Your task to perform on an android device: toggle notification dots Image 0: 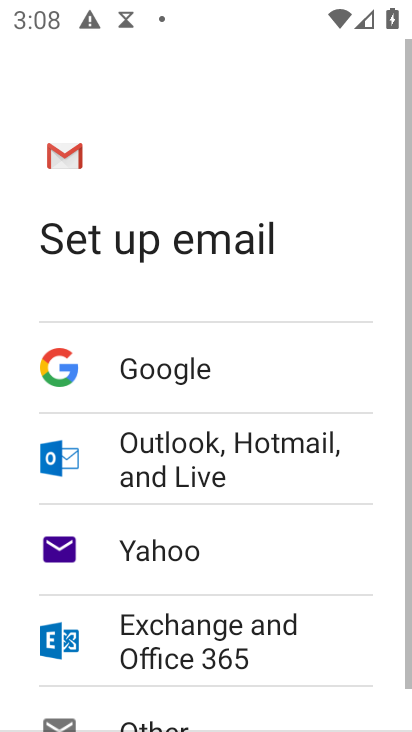
Step 0: press home button
Your task to perform on an android device: toggle notification dots Image 1: 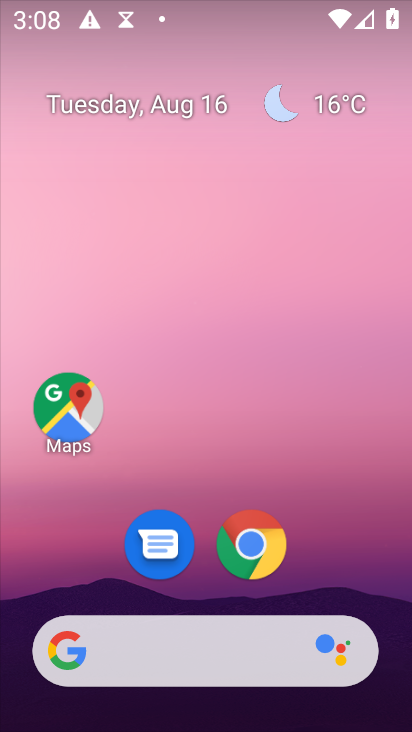
Step 1: drag from (188, 668) to (257, 54)
Your task to perform on an android device: toggle notification dots Image 2: 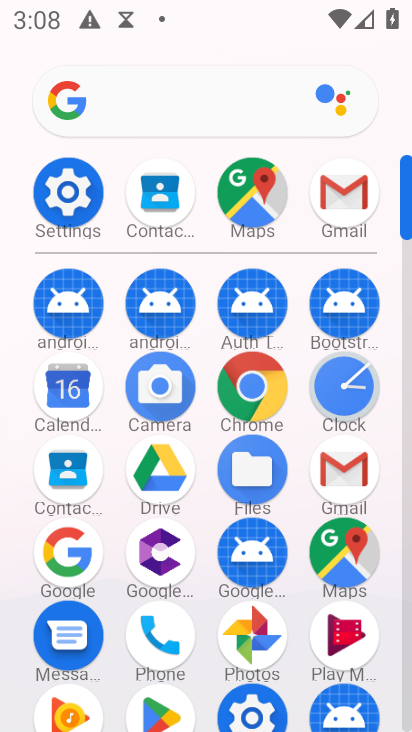
Step 2: click (65, 192)
Your task to perform on an android device: toggle notification dots Image 3: 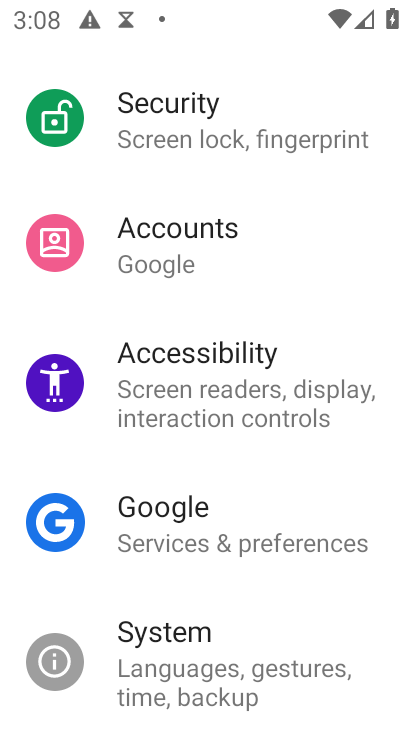
Step 3: drag from (236, 330) to (221, 460)
Your task to perform on an android device: toggle notification dots Image 4: 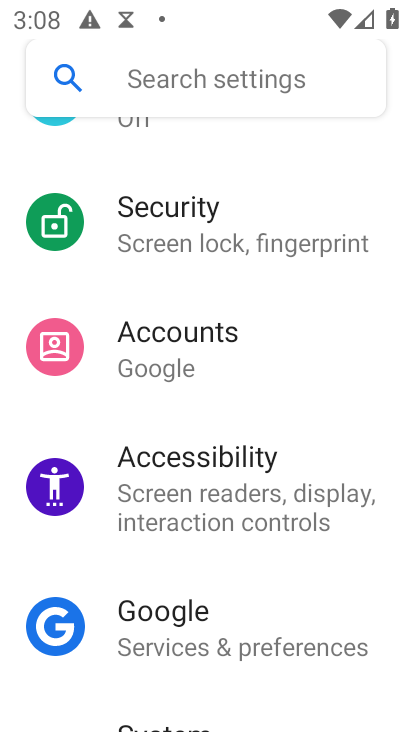
Step 4: drag from (220, 173) to (205, 313)
Your task to perform on an android device: toggle notification dots Image 5: 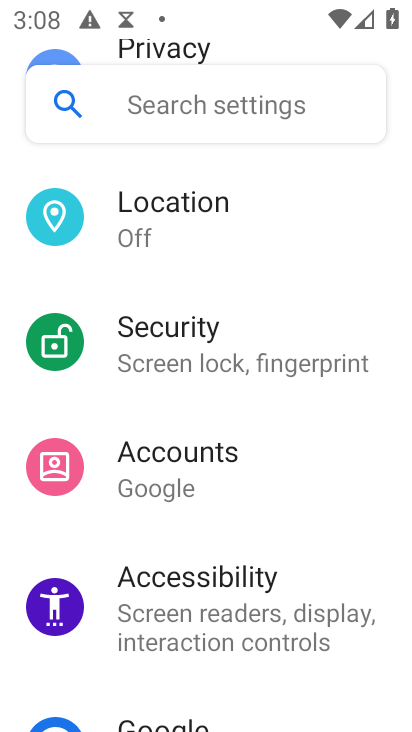
Step 5: drag from (178, 283) to (176, 420)
Your task to perform on an android device: toggle notification dots Image 6: 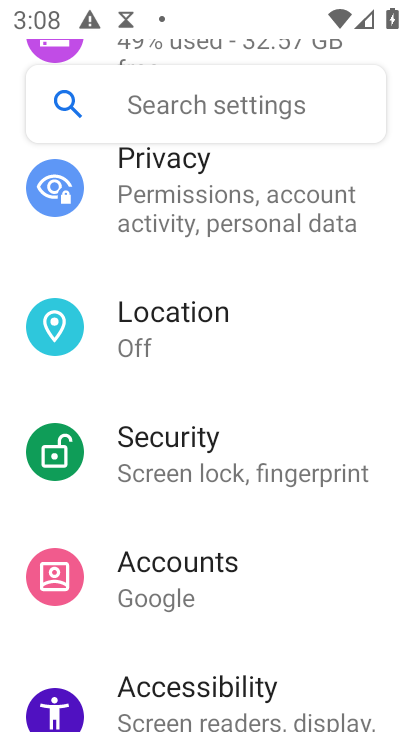
Step 6: drag from (189, 272) to (163, 446)
Your task to perform on an android device: toggle notification dots Image 7: 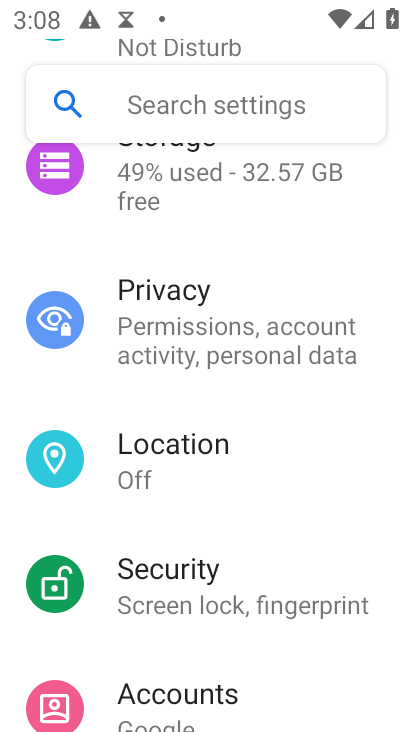
Step 7: drag from (175, 247) to (197, 391)
Your task to perform on an android device: toggle notification dots Image 8: 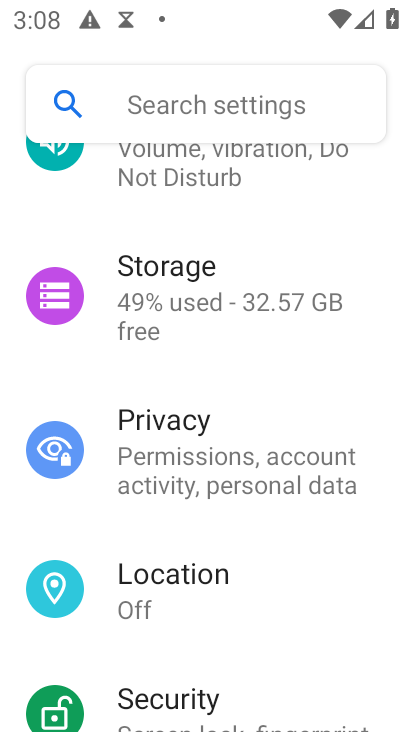
Step 8: drag from (173, 238) to (206, 409)
Your task to perform on an android device: toggle notification dots Image 9: 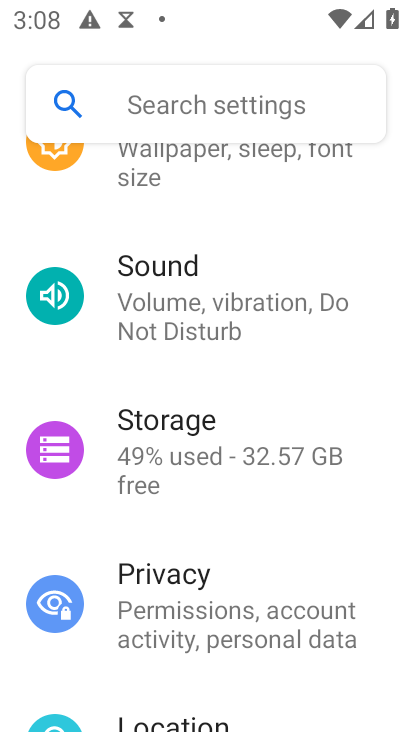
Step 9: drag from (166, 228) to (204, 422)
Your task to perform on an android device: toggle notification dots Image 10: 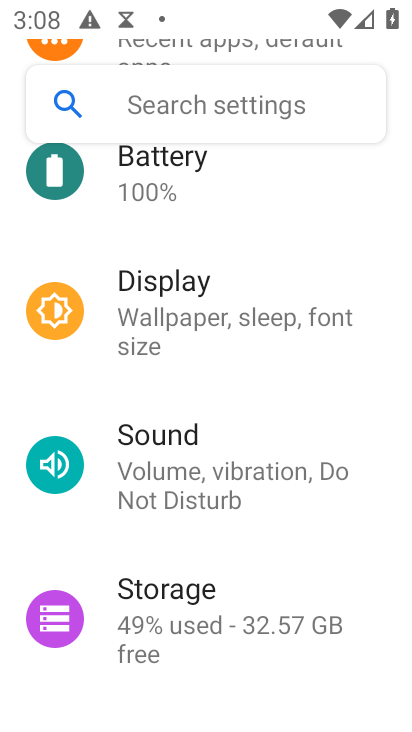
Step 10: drag from (166, 246) to (204, 381)
Your task to perform on an android device: toggle notification dots Image 11: 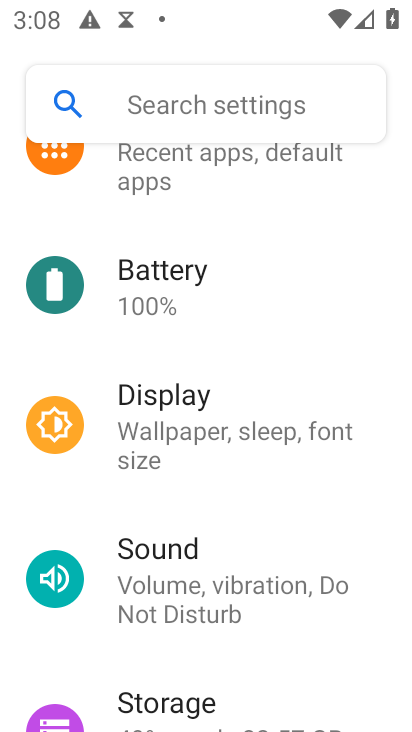
Step 11: drag from (162, 228) to (192, 398)
Your task to perform on an android device: toggle notification dots Image 12: 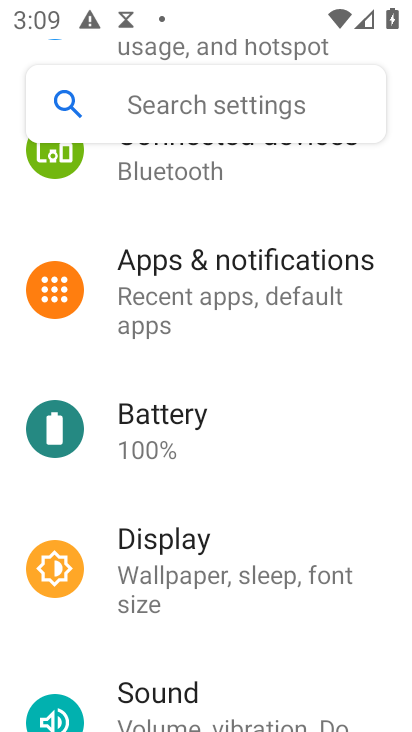
Step 12: click (241, 272)
Your task to perform on an android device: toggle notification dots Image 13: 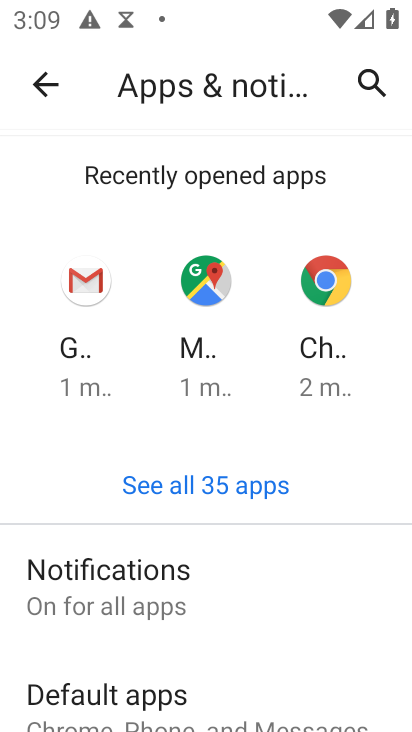
Step 13: click (127, 572)
Your task to perform on an android device: toggle notification dots Image 14: 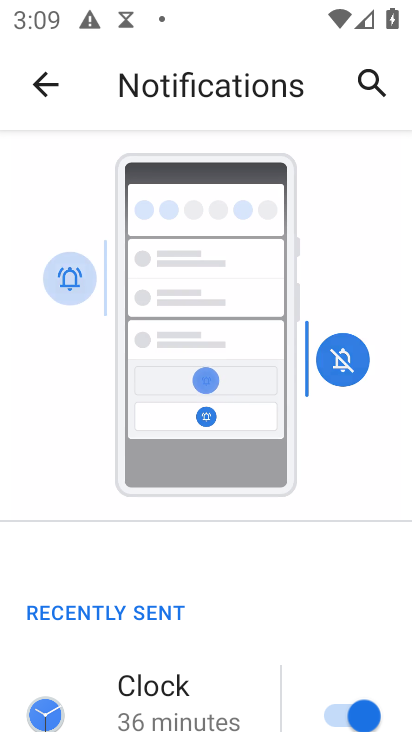
Step 14: drag from (210, 603) to (274, 409)
Your task to perform on an android device: toggle notification dots Image 15: 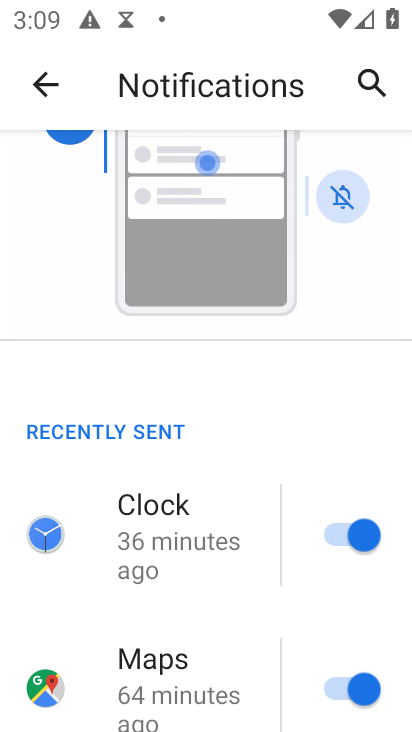
Step 15: drag from (168, 616) to (238, 433)
Your task to perform on an android device: toggle notification dots Image 16: 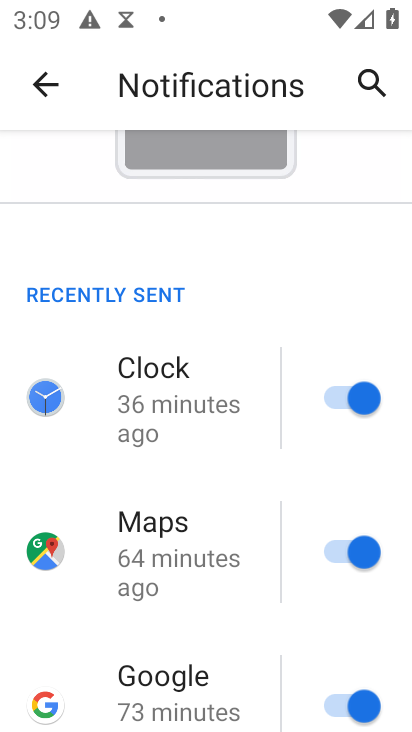
Step 16: drag from (155, 646) to (208, 496)
Your task to perform on an android device: toggle notification dots Image 17: 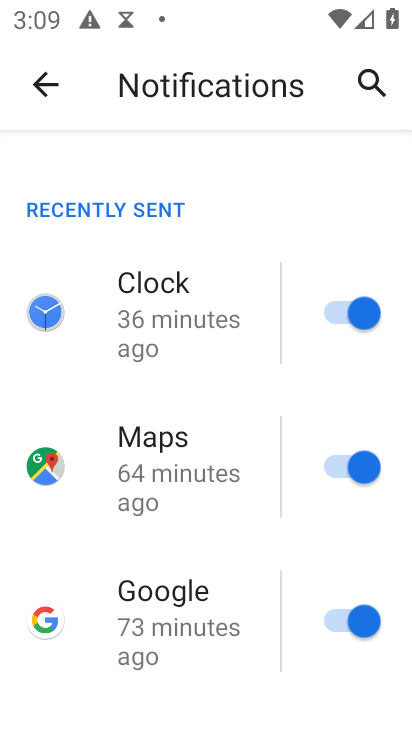
Step 17: drag from (164, 663) to (203, 420)
Your task to perform on an android device: toggle notification dots Image 18: 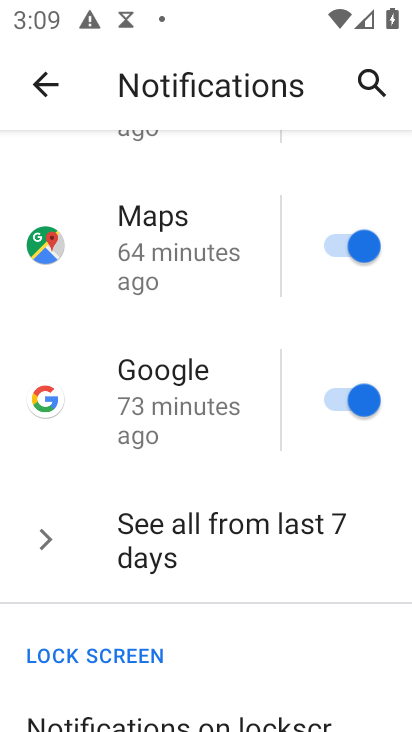
Step 18: drag from (154, 623) to (199, 425)
Your task to perform on an android device: toggle notification dots Image 19: 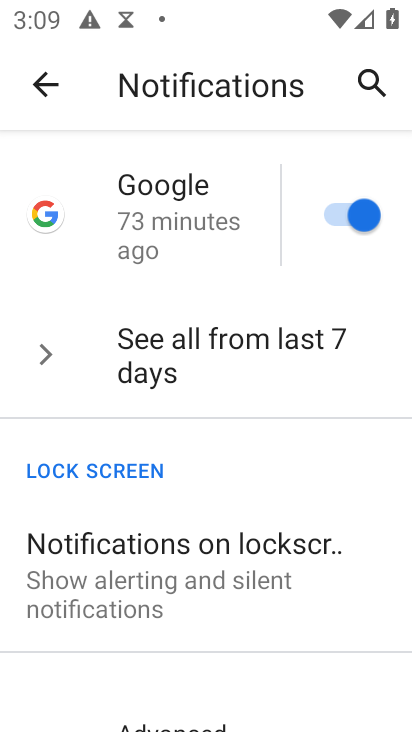
Step 19: drag from (214, 618) to (264, 399)
Your task to perform on an android device: toggle notification dots Image 20: 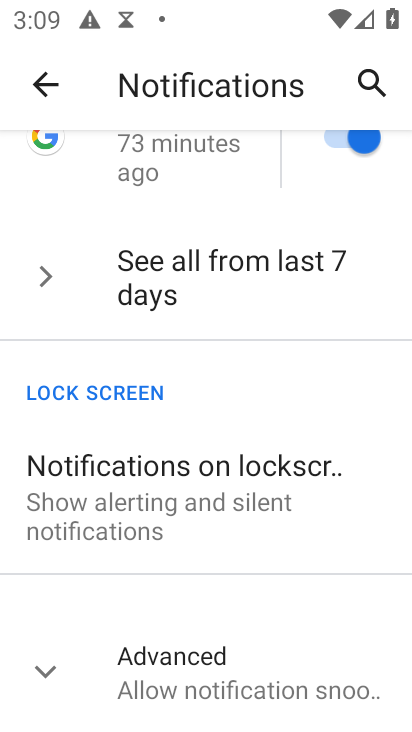
Step 20: click (183, 663)
Your task to perform on an android device: toggle notification dots Image 21: 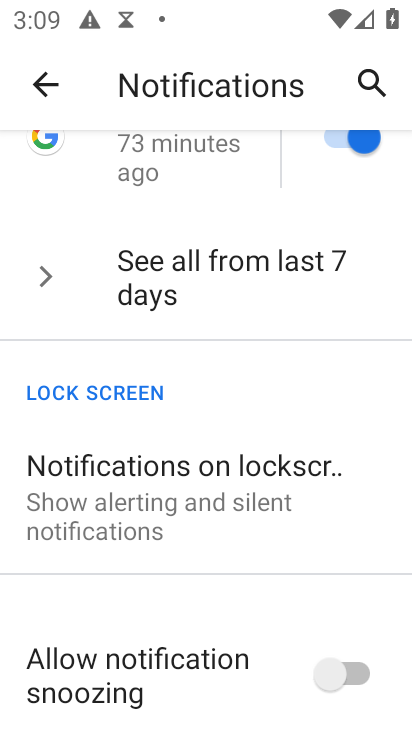
Step 21: drag from (152, 689) to (204, 494)
Your task to perform on an android device: toggle notification dots Image 22: 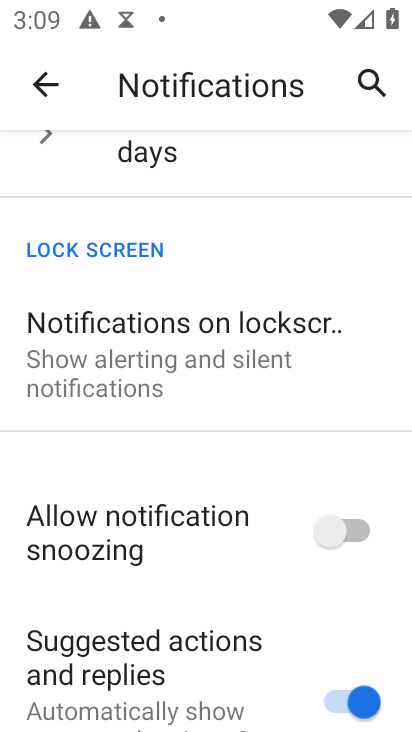
Step 22: drag from (190, 681) to (258, 461)
Your task to perform on an android device: toggle notification dots Image 23: 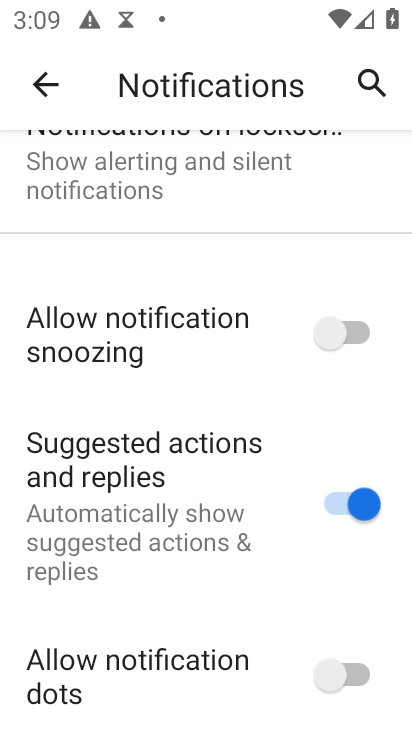
Step 23: click (341, 682)
Your task to perform on an android device: toggle notification dots Image 24: 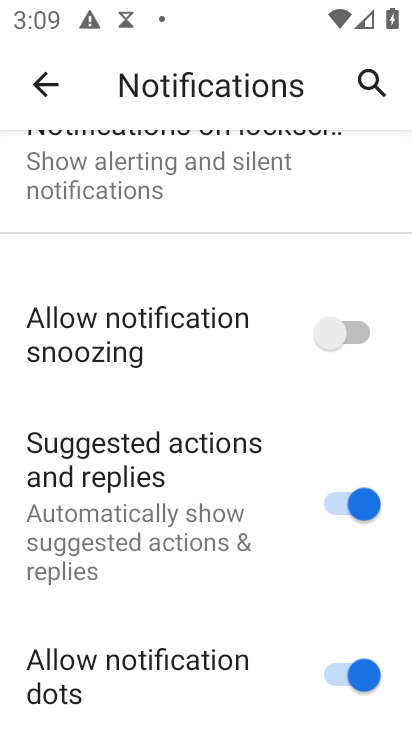
Step 24: task complete